Your task to perform on an android device: Search for macbook pro 13 inch on amazon, select the first entry, add it to the cart, then select checkout. Image 0: 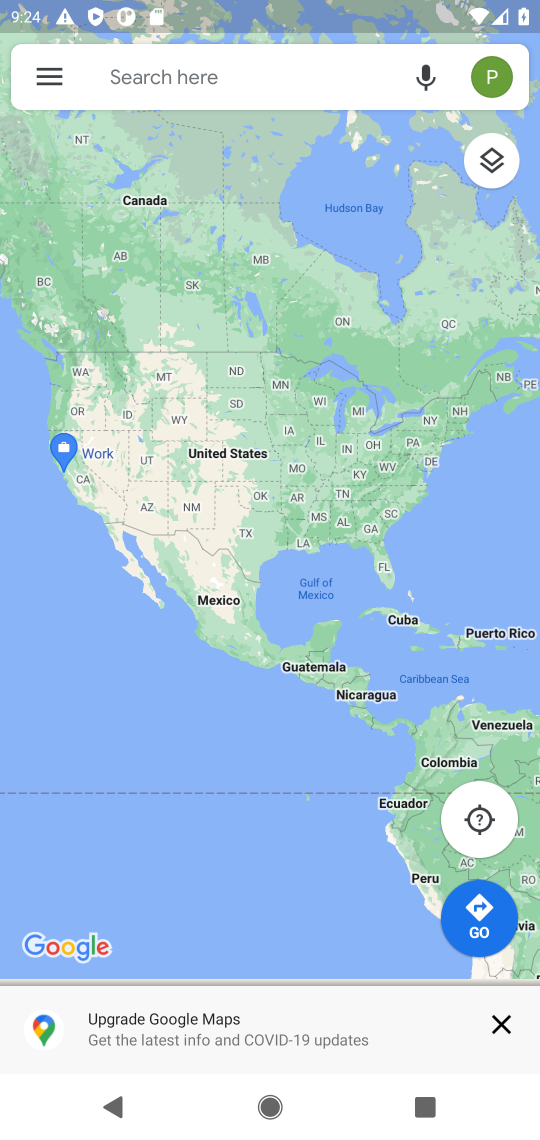
Step 0: press home button
Your task to perform on an android device: Search for macbook pro 13 inch on amazon, select the first entry, add it to the cart, then select checkout. Image 1: 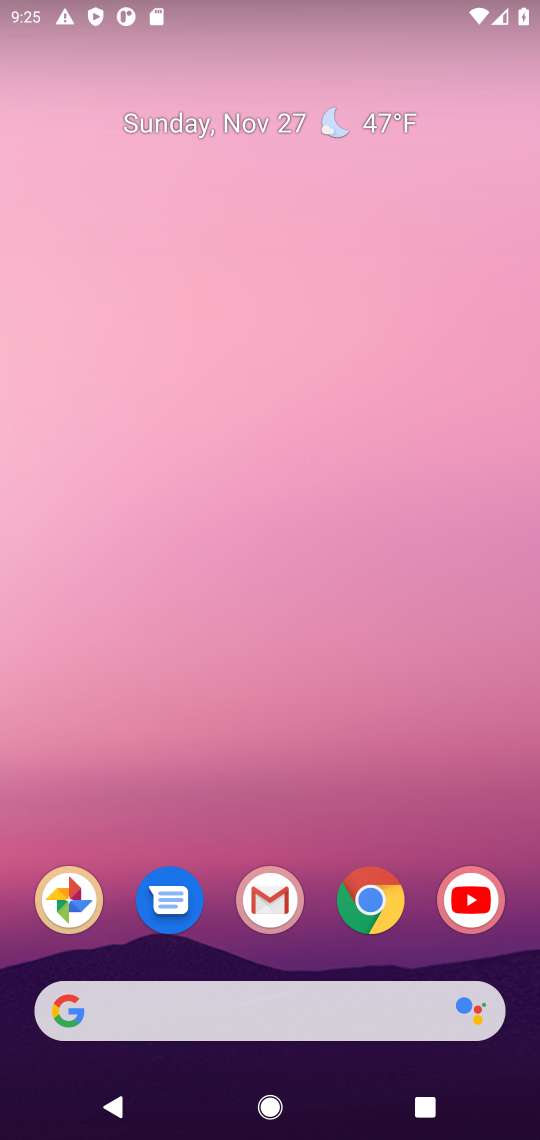
Step 1: click (367, 898)
Your task to perform on an android device: Search for macbook pro 13 inch on amazon, select the first entry, add it to the cart, then select checkout. Image 2: 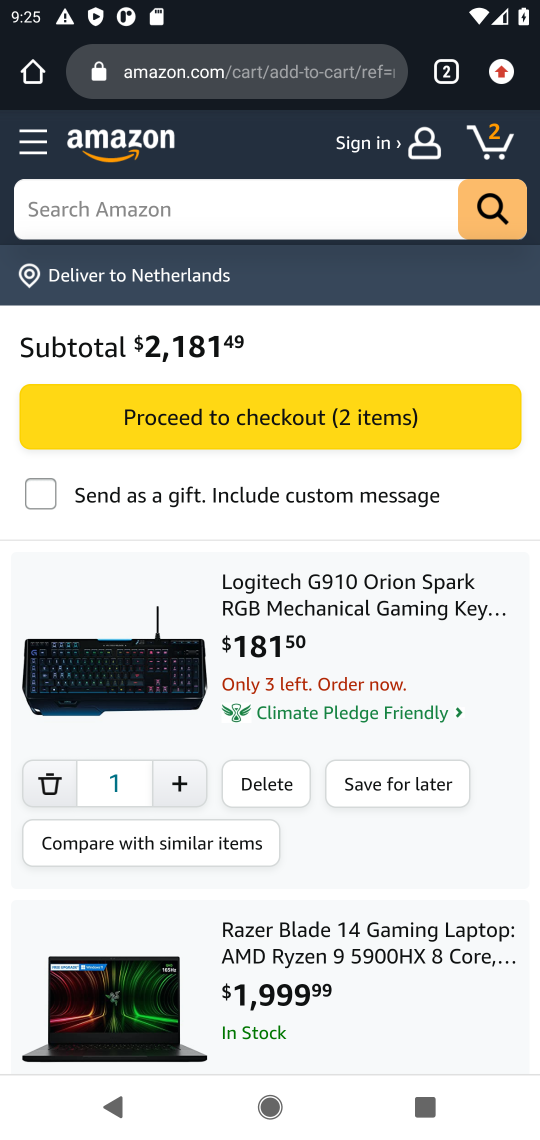
Step 2: click (112, 213)
Your task to perform on an android device: Search for macbook pro 13 inch on amazon, select the first entry, add it to the cart, then select checkout. Image 3: 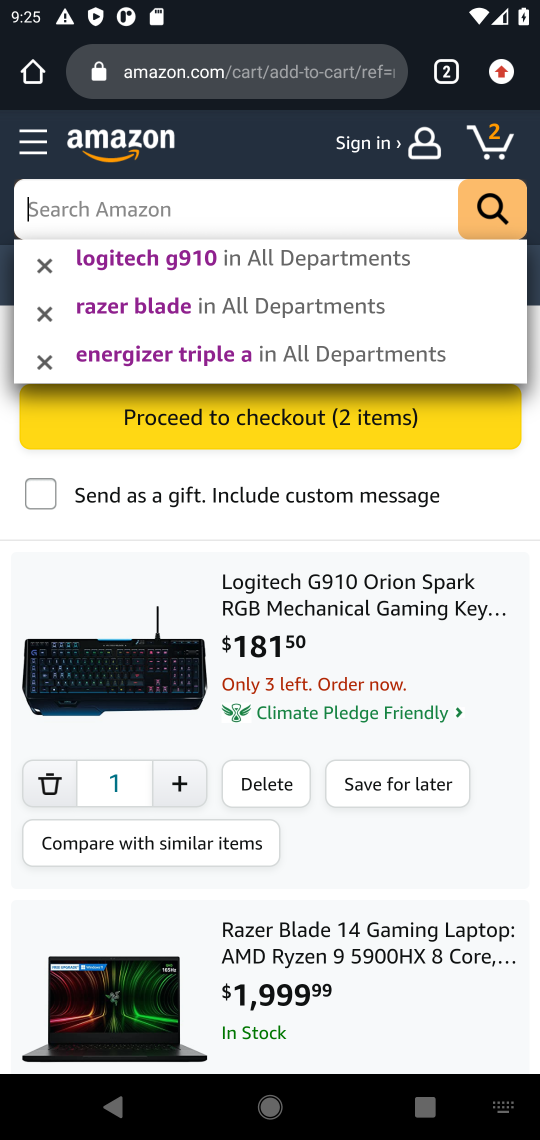
Step 3: type " macbook pro 13 inch"
Your task to perform on an android device: Search for macbook pro 13 inch on amazon, select the first entry, add it to the cart, then select checkout. Image 4: 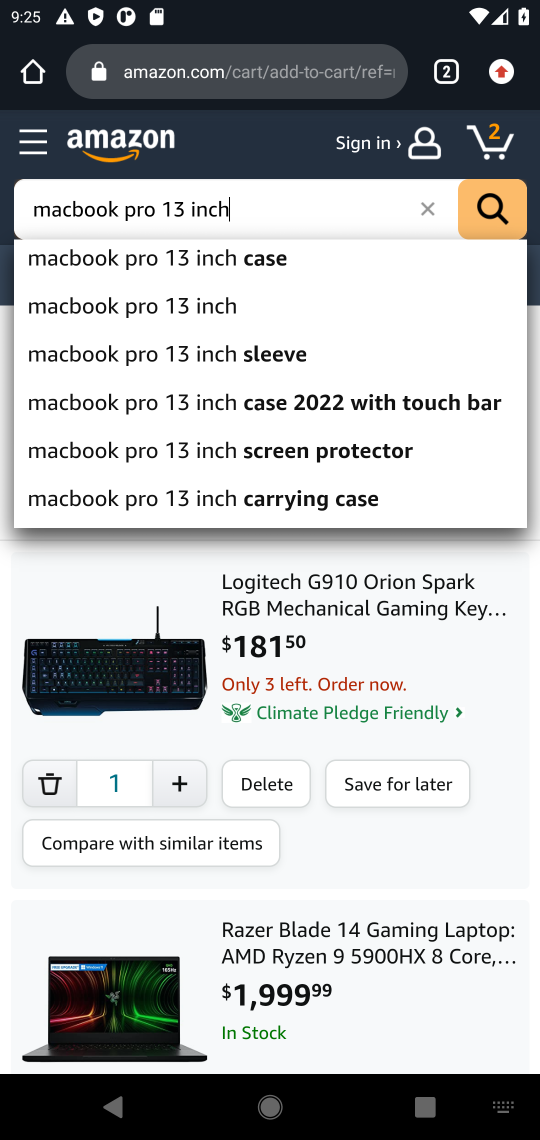
Step 4: click (96, 305)
Your task to perform on an android device: Search for macbook pro 13 inch on amazon, select the first entry, add it to the cart, then select checkout. Image 5: 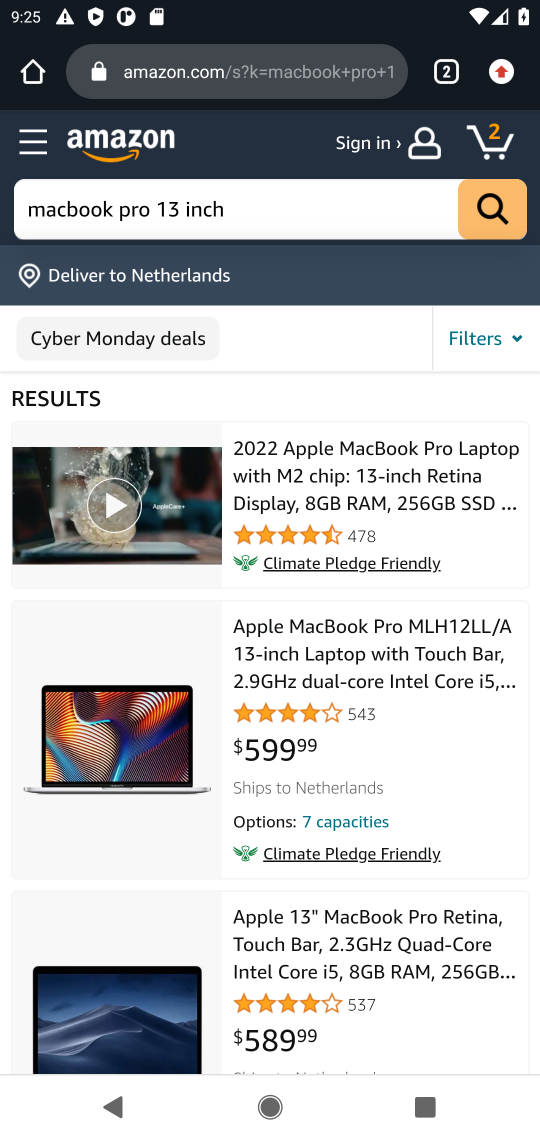
Step 5: click (274, 489)
Your task to perform on an android device: Search for macbook pro 13 inch on amazon, select the first entry, add it to the cart, then select checkout. Image 6: 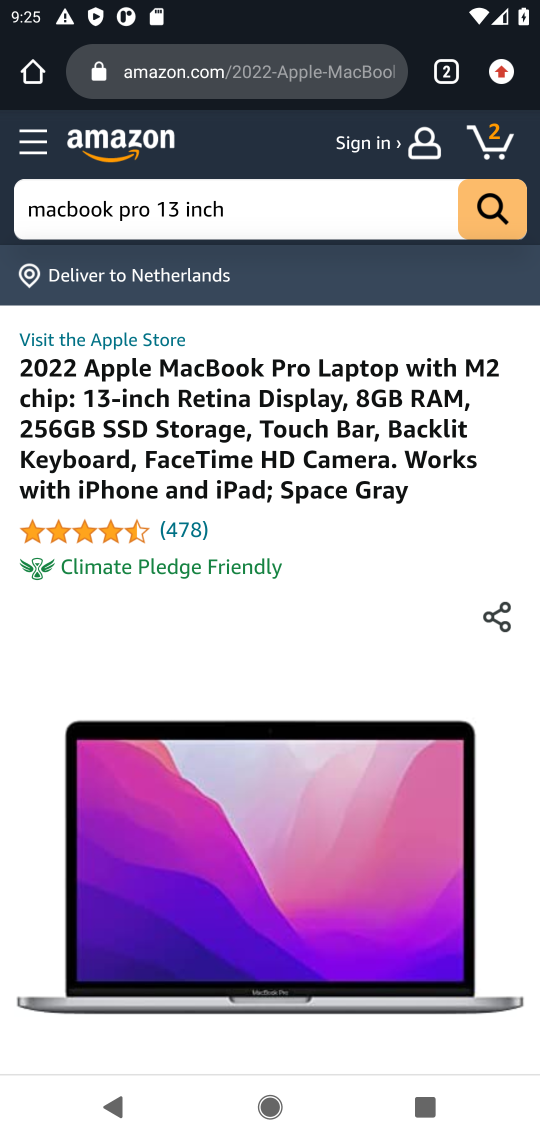
Step 6: task complete